Your task to perform on an android device: Open Google Chrome and click the shortcut for Amazon.com Image 0: 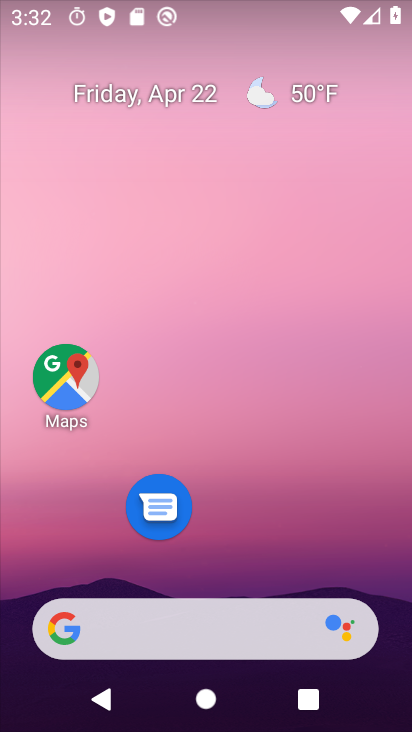
Step 0: drag from (271, 540) to (303, 127)
Your task to perform on an android device: Open Google Chrome and click the shortcut for Amazon.com Image 1: 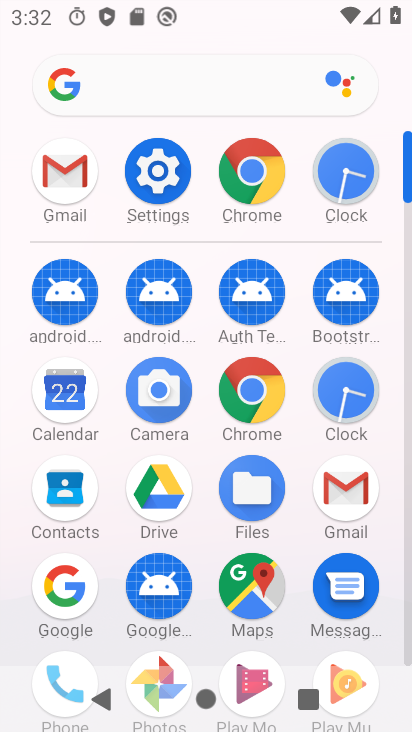
Step 1: click (253, 158)
Your task to perform on an android device: Open Google Chrome and click the shortcut for Amazon.com Image 2: 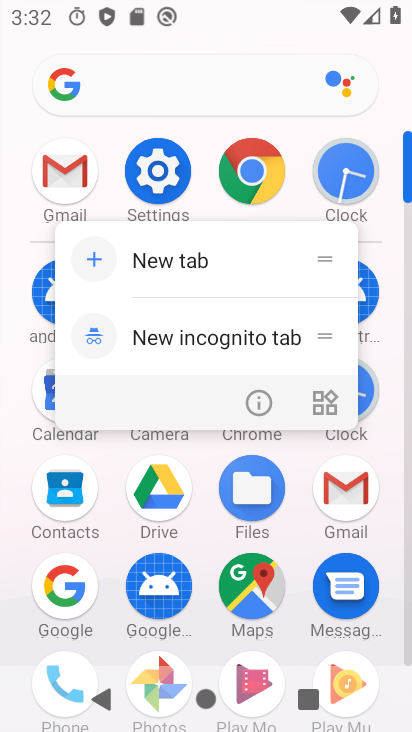
Step 2: click (256, 175)
Your task to perform on an android device: Open Google Chrome and click the shortcut for Amazon.com Image 3: 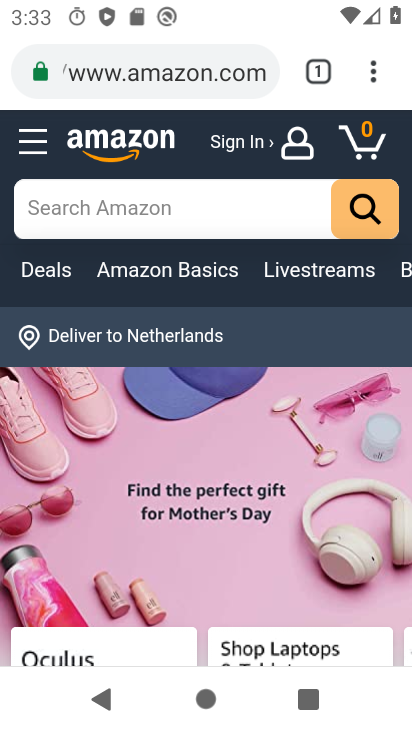
Step 3: task complete